Your task to perform on an android device: Go to Amazon Image 0: 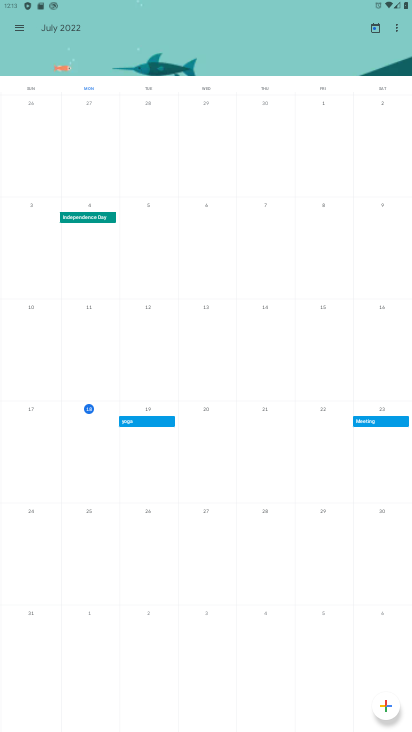
Step 0: press home button
Your task to perform on an android device: Go to Amazon Image 1: 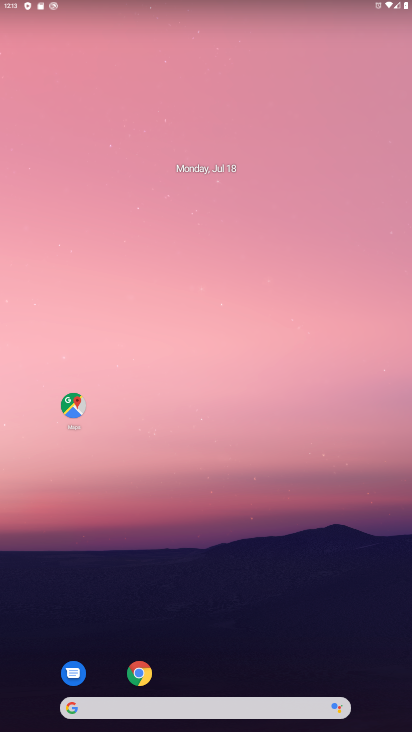
Step 1: click (128, 679)
Your task to perform on an android device: Go to Amazon Image 2: 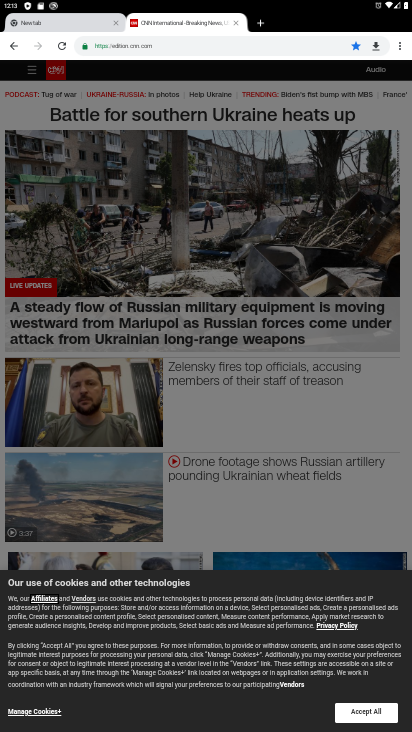
Step 2: click (253, 25)
Your task to perform on an android device: Go to Amazon Image 3: 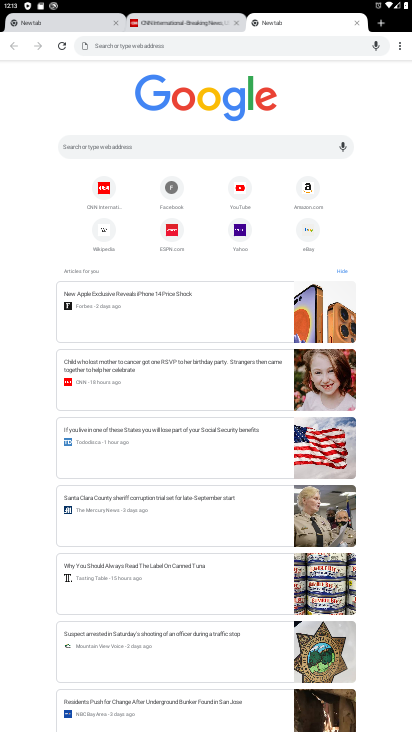
Step 3: click (297, 197)
Your task to perform on an android device: Go to Amazon Image 4: 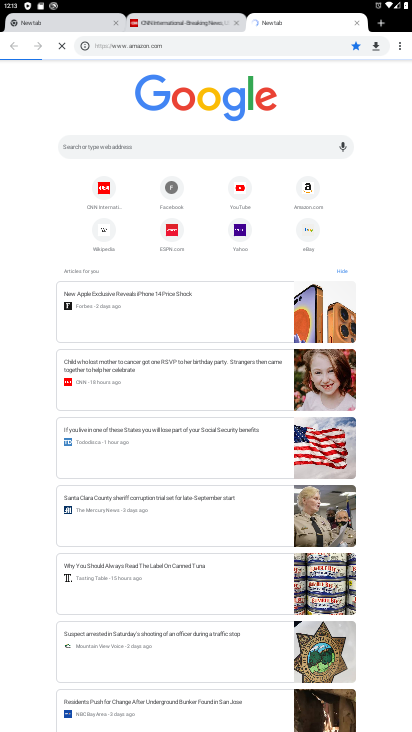
Step 4: task complete